Your task to perform on an android device: turn on airplane mode Image 0: 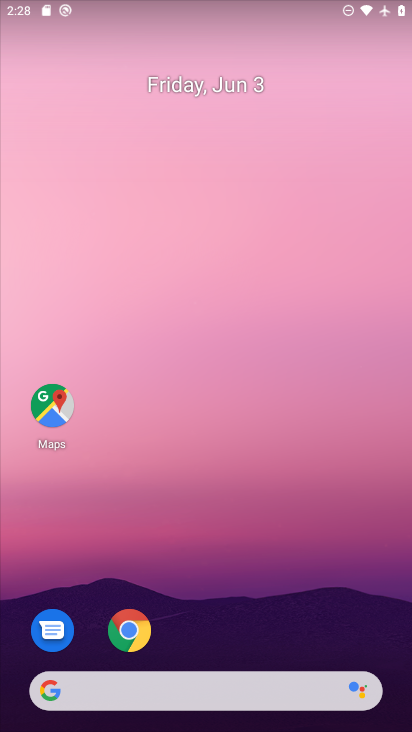
Step 0: drag from (207, 723) to (116, 2)
Your task to perform on an android device: turn on airplane mode Image 1: 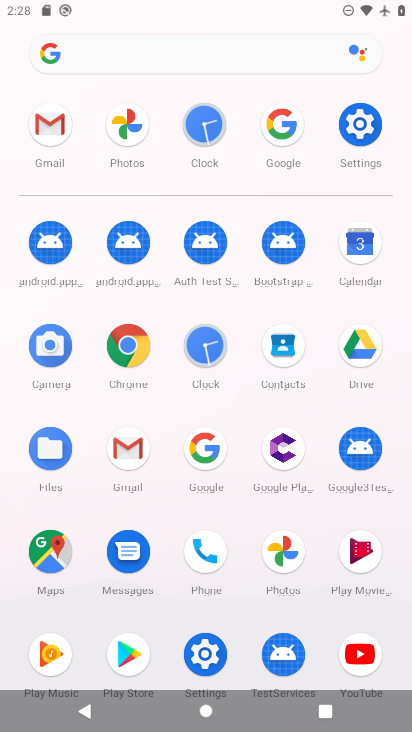
Step 1: click (368, 119)
Your task to perform on an android device: turn on airplane mode Image 2: 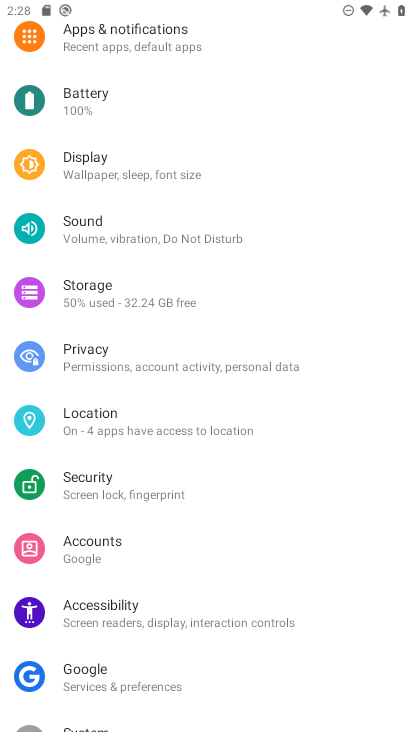
Step 2: drag from (307, 75) to (340, 435)
Your task to perform on an android device: turn on airplane mode Image 3: 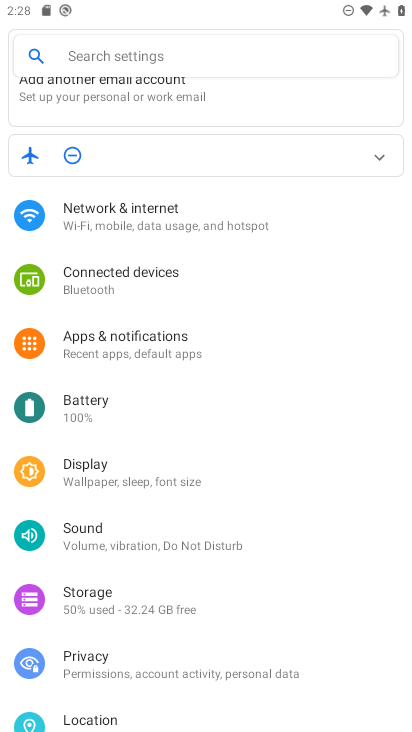
Step 3: click (122, 223)
Your task to perform on an android device: turn on airplane mode Image 4: 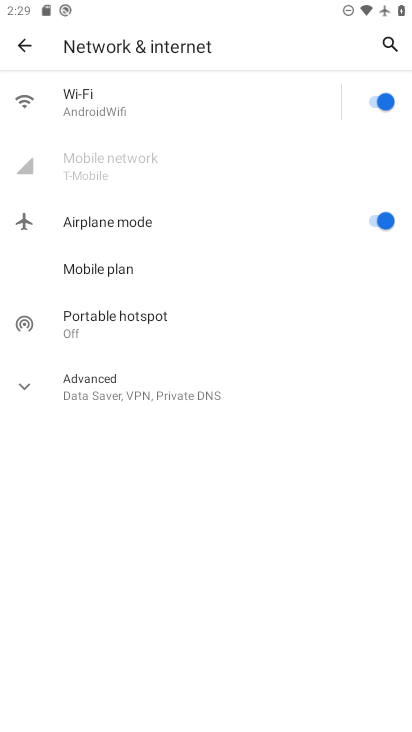
Step 4: task complete